Your task to perform on an android device: Do I have any events tomorrow? Image 0: 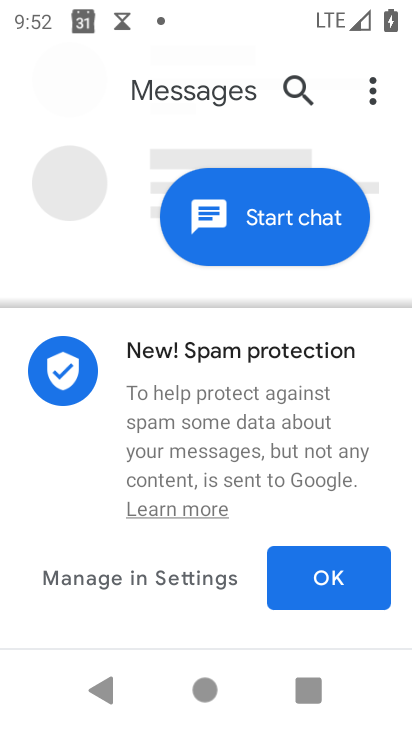
Step 0: press home button
Your task to perform on an android device: Do I have any events tomorrow? Image 1: 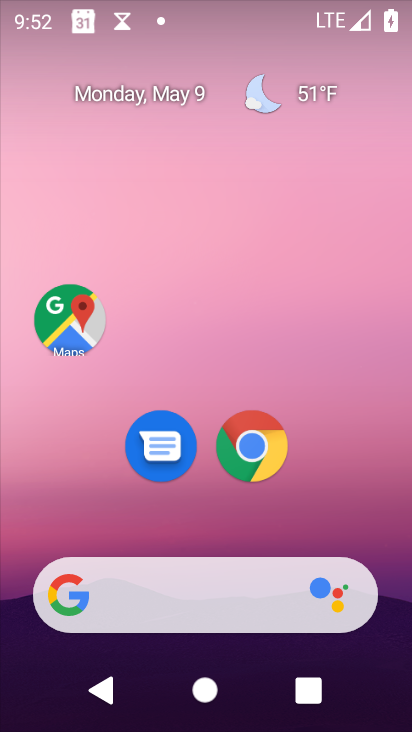
Step 1: click (148, 91)
Your task to perform on an android device: Do I have any events tomorrow? Image 2: 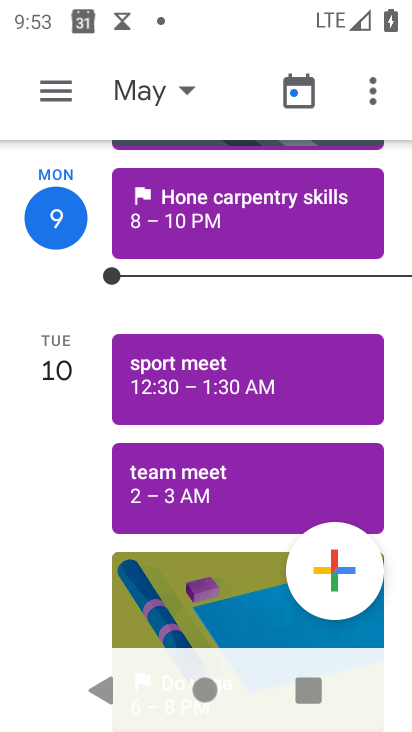
Step 2: drag from (89, 329) to (101, 106)
Your task to perform on an android device: Do I have any events tomorrow? Image 3: 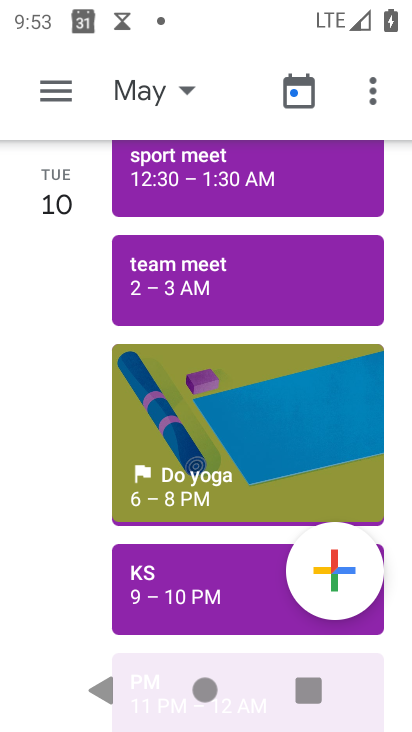
Step 3: drag from (55, 508) to (103, 151)
Your task to perform on an android device: Do I have any events tomorrow? Image 4: 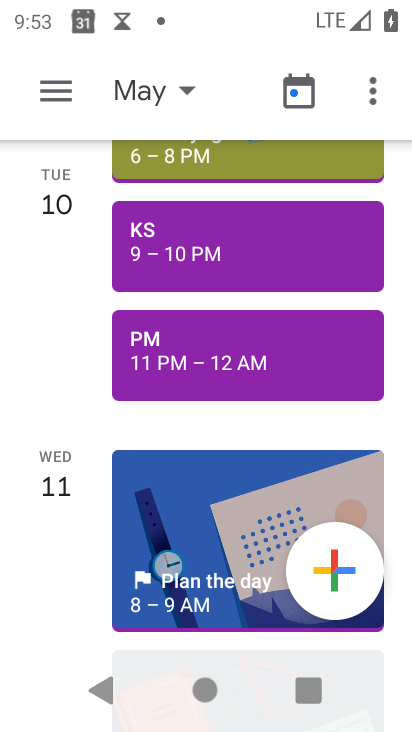
Step 4: drag from (58, 476) to (120, 153)
Your task to perform on an android device: Do I have any events tomorrow? Image 5: 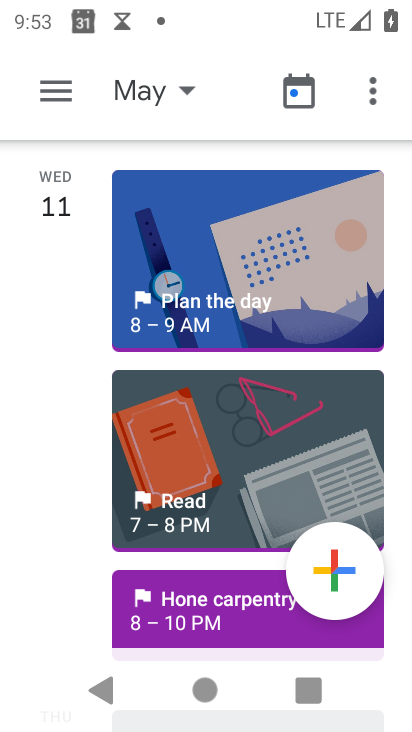
Step 5: click (52, 86)
Your task to perform on an android device: Do I have any events tomorrow? Image 6: 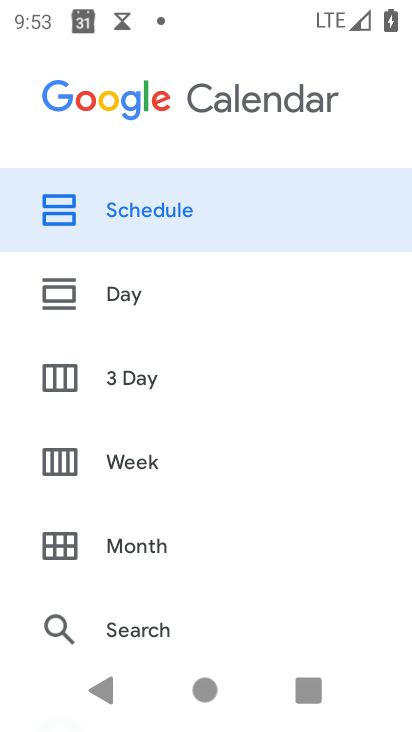
Step 6: drag from (205, 599) to (203, 319)
Your task to perform on an android device: Do I have any events tomorrow? Image 7: 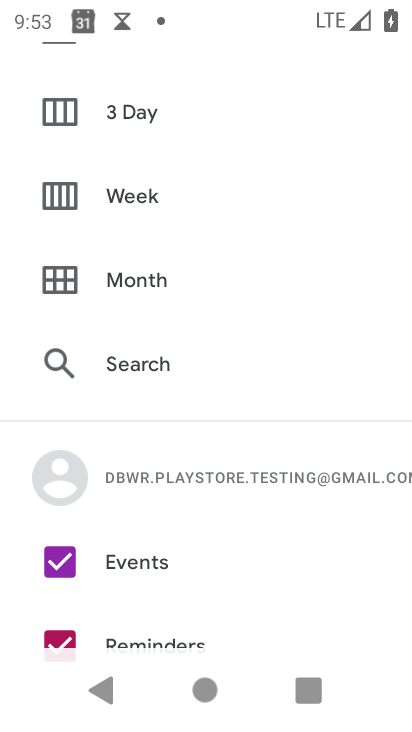
Step 7: drag from (208, 584) to (232, 259)
Your task to perform on an android device: Do I have any events tomorrow? Image 8: 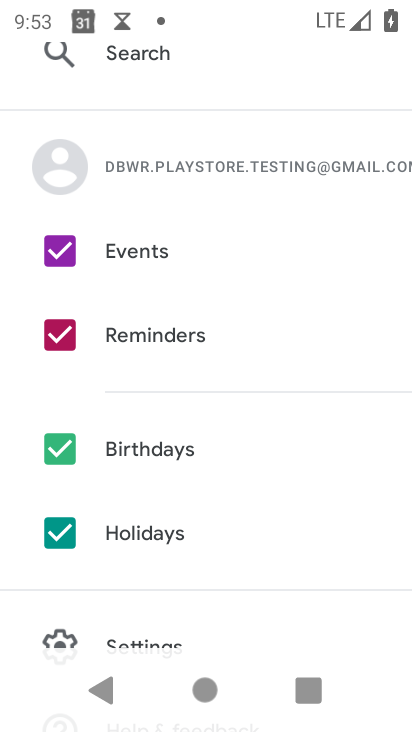
Step 8: click (67, 535)
Your task to perform on an android device: Do I have any events tomorrow? Image 9: 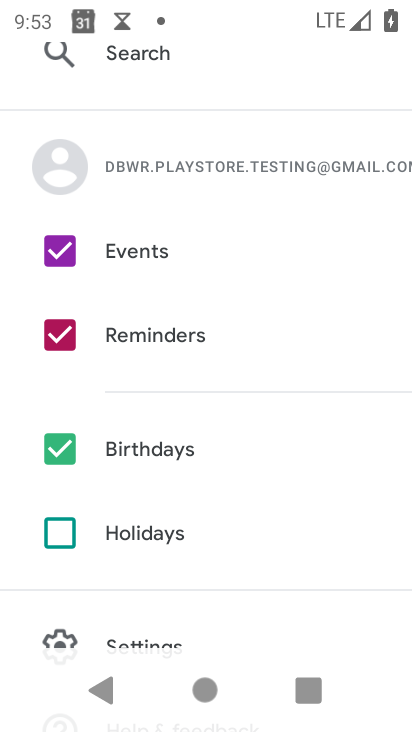
Step 9: click (60, 453)
Your task to perform on an android device: Do I have any events tomorrow? Image 10: 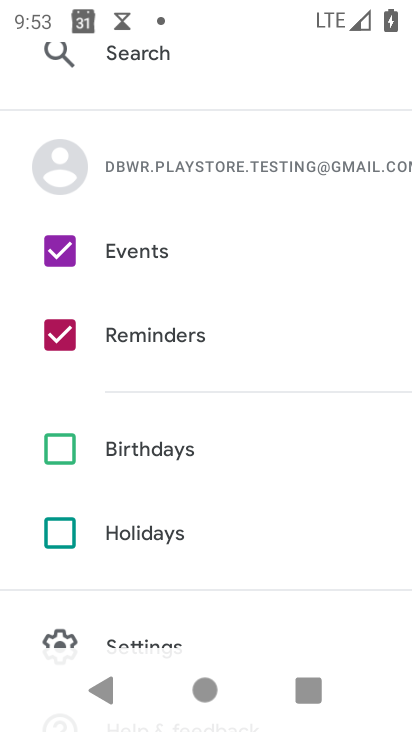
Step 10: click (66, 335)
Your task to perform on an android device: Do I have any events tomorrow? Image 11: 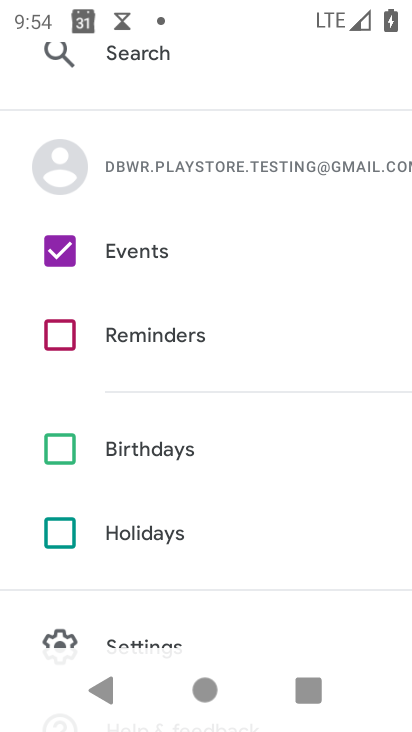
Step 11: drag from (266, 173) to (228, 515)
Your task to perform on an android device: Do I have any events tomorrow? Image 12: 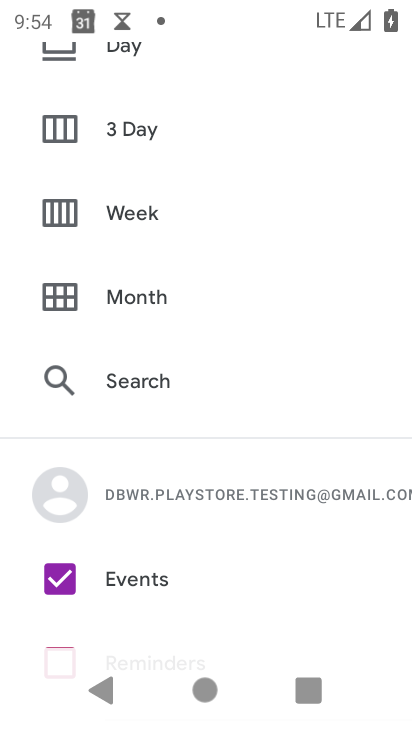
Step 12: drag from (237, 250) to (210, 566)
Your task to perform on an android device: Do I have any events tomorrow? Image 13: 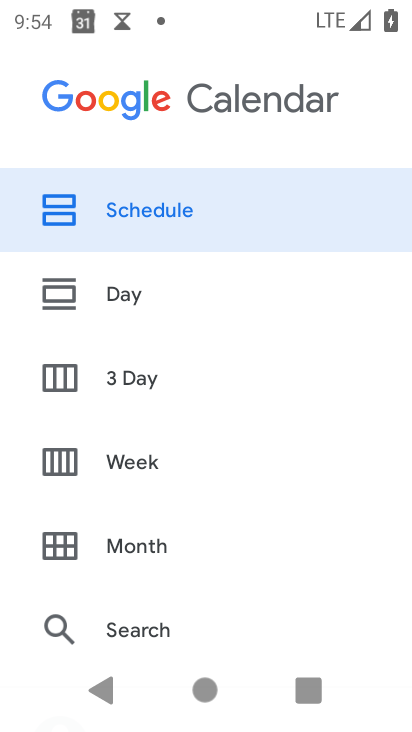
Step 13: click (151, 224)
Your task to perform on an android device: Do I have any events tomorrow? Image 14: 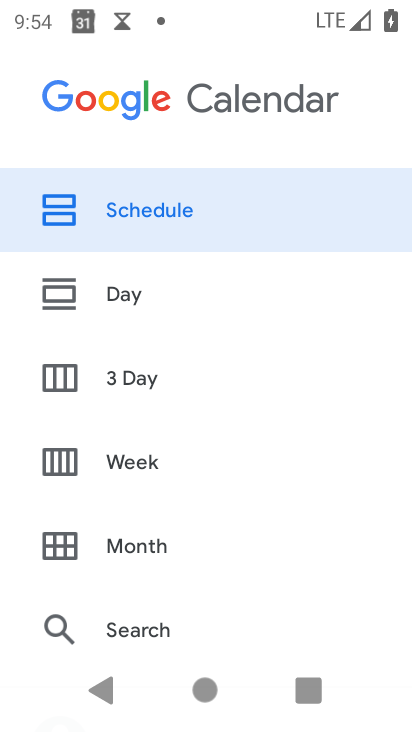
Step 14: click (176, 210)
Your task to perform on an android device: Do I have any events tomorrow? Image 15: 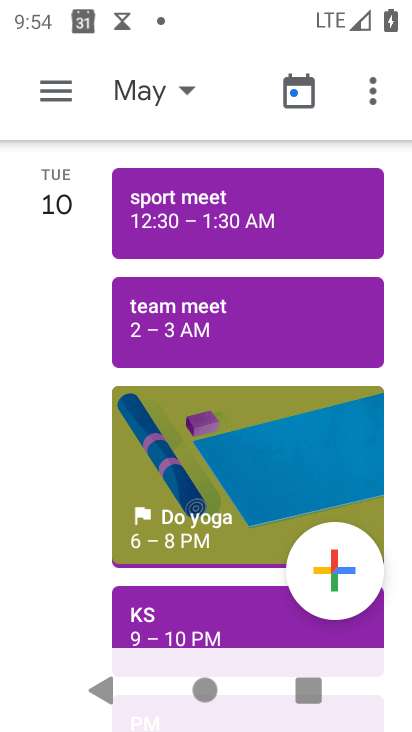
Step 15: task complete